Your task to perform on an android device: add a contact in the contacts app Image 0: 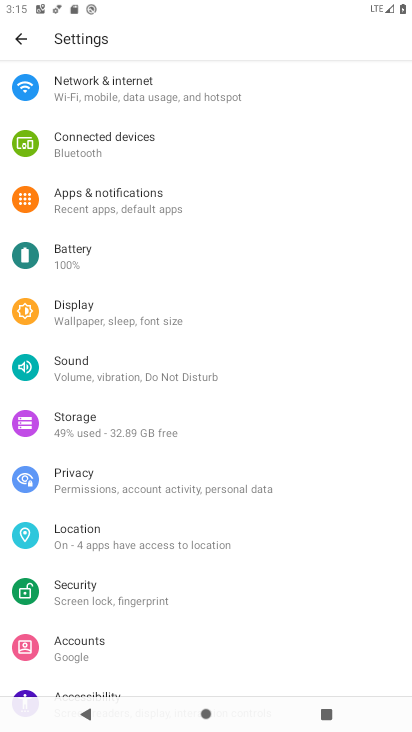
Step 0: press home button
Your task to perform on an android device: add a contact in the contacts app Image 1: 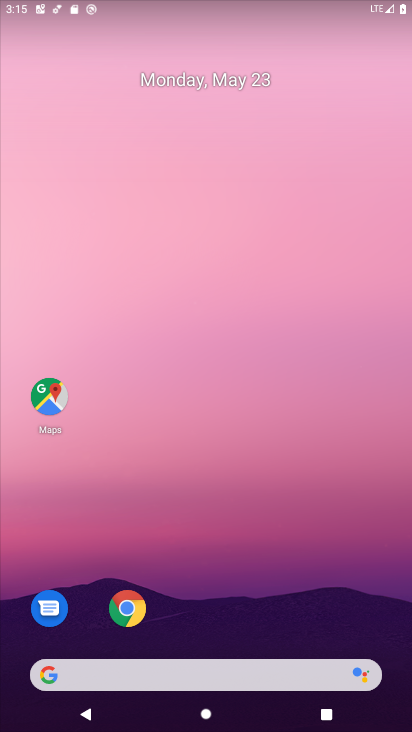
Step 1: drag from (293, 610) to (260, 0)
Your task to perform on an android device: add a contact in the contacts app Image 2: 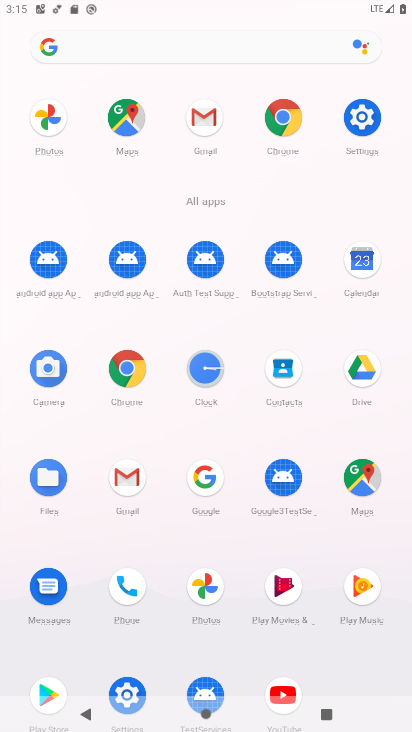
Step 2: click (277, 371)
Your task to perform on an android device: add a contact in the contacts app Image 3: 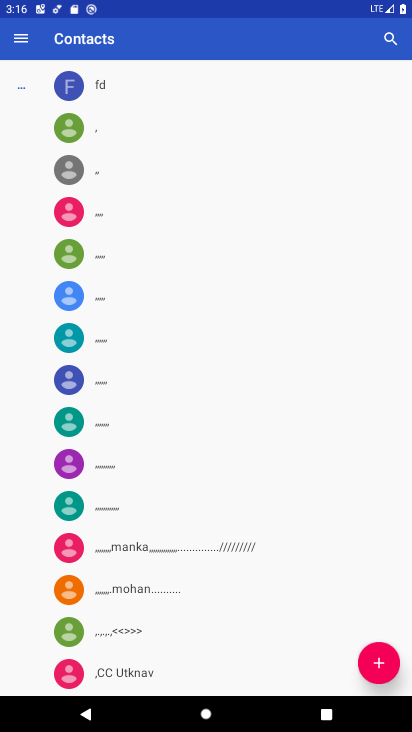
Step 3: click (372, 655)
Your task to perform on an android device: add a contact in the contacts app Image 4: 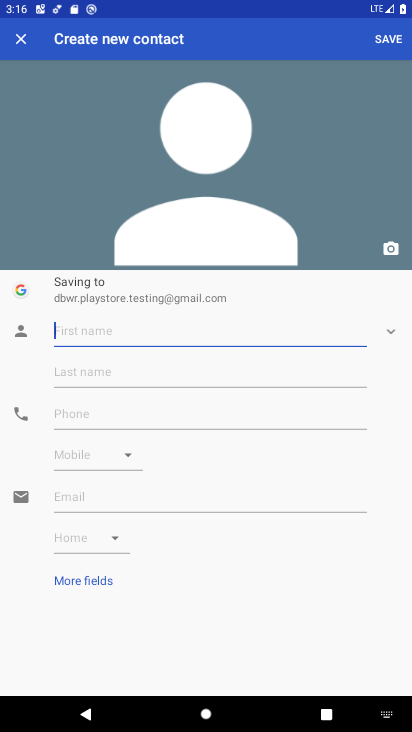
Step 4: click (276, 328)
Your task to perform on an android device: add a contact in the contacts app Image 5: 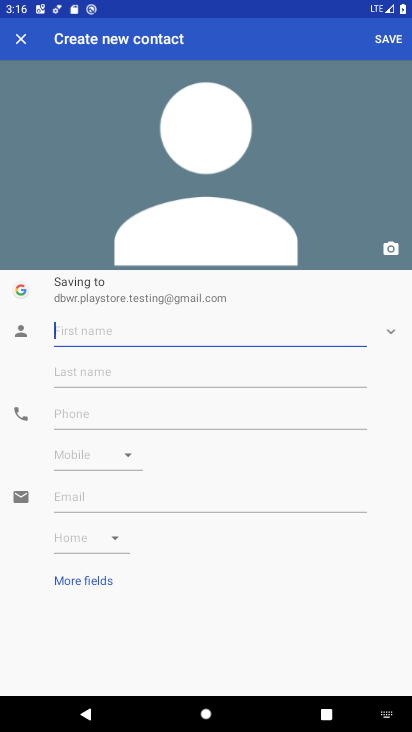
Step 5: click (276, 328)
Your task to perform on an android device: add a contact in the contacts app Image 6: 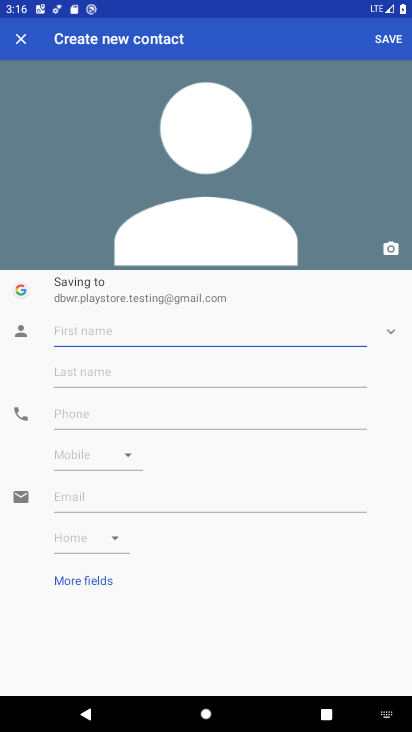
Step 6: type "ndkjcndkjn"
Your task to perform on an android device: add a contact in the contacts app Image 7: 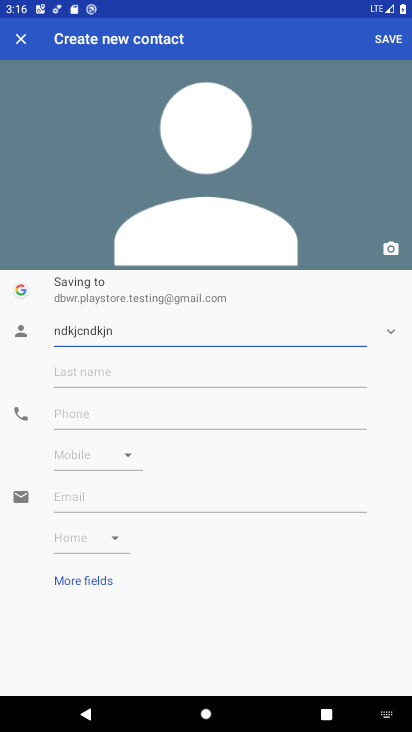
Step 7: click (111, 420)
Your task to perform on an android device: add a contact in the contacts app Image 8: 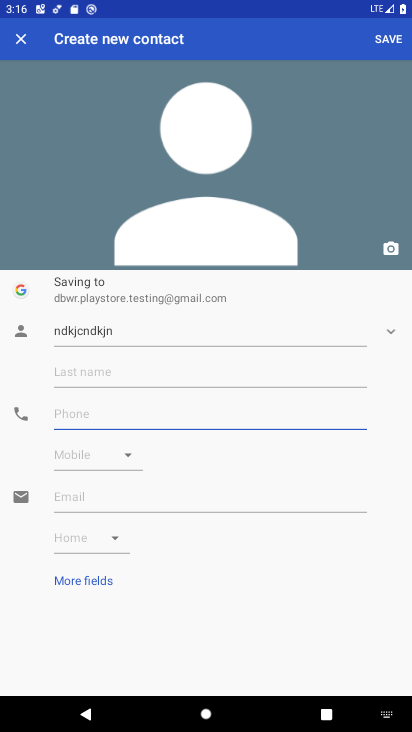
Step 8: type "040240293"
Your task to perform on an android device: add a contact in the contacts app Image 9: 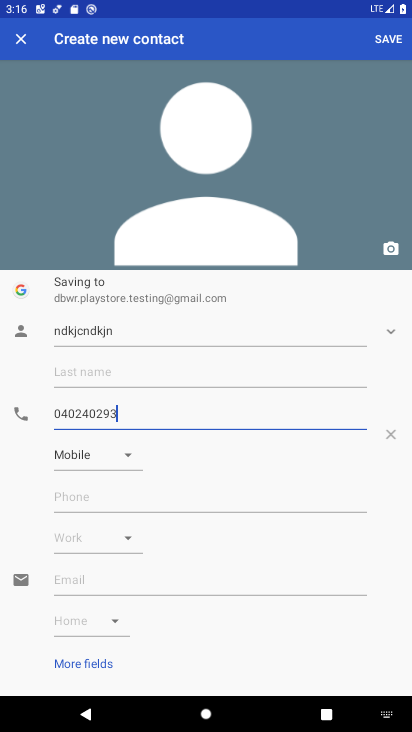
Step 9: click (393, 49)
Your task to perform on an android device: add a contact in the contacts app Image 10: 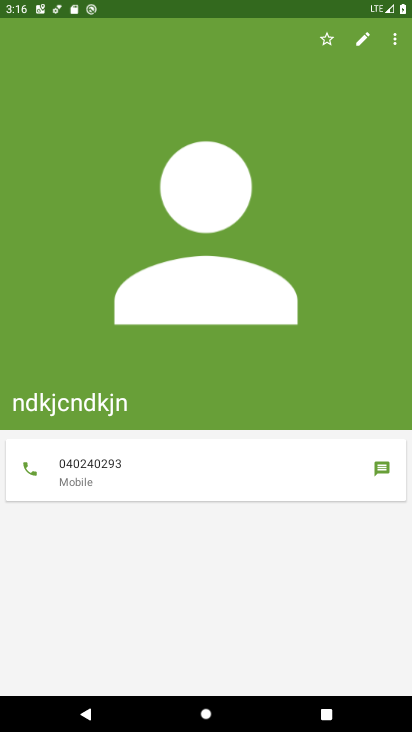
Step 10: task complete